Your task to perform on an android device: visit the assistant section in the google photos Image 0: 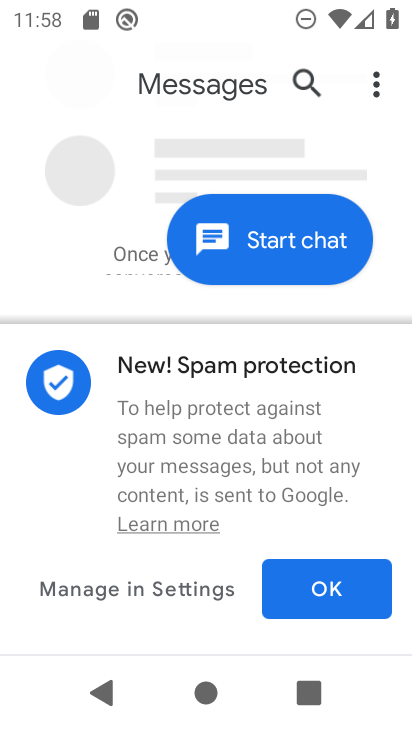
Step 0: press home button
Your task to perform on an android device: visit the assistant section in the google photos Image 1: 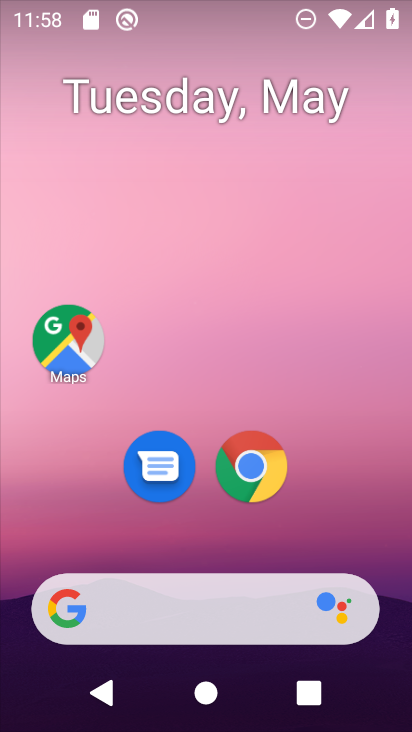
Step 1: drag from (205, 538) to (226, 75)
Your task to perform on an android device: visit the assistant section in the google photos Image 2: 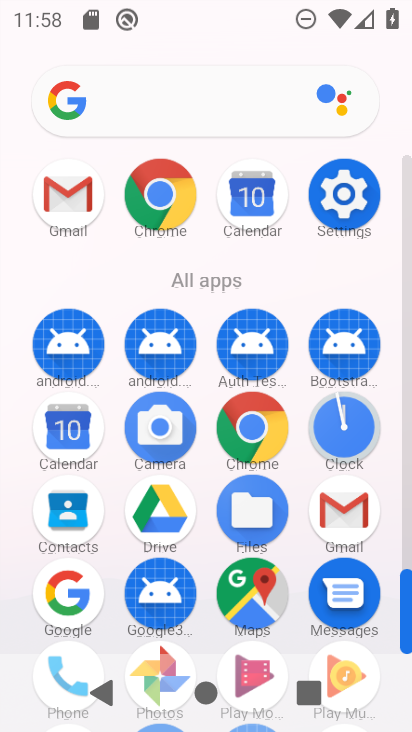
Step 2: drag from (206, 549) to (226, 188)
Your task to perform on an android device: visit the assistant section in the google photos Image 3: 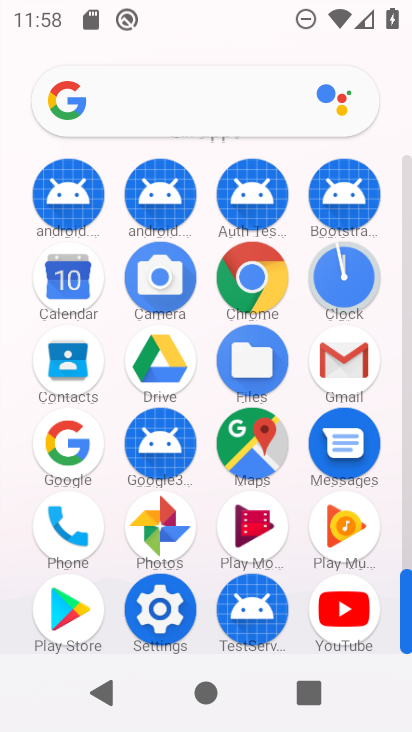
Step 3: click (162, 520)
Your task to perform on an android device: visit the assistant section in the google photos Image 4: 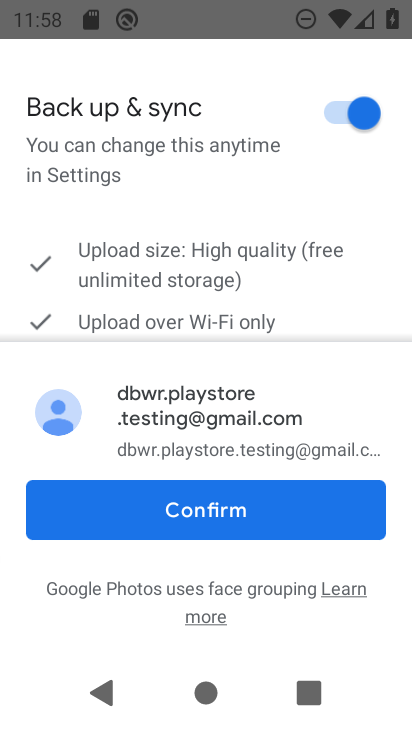
Step 4: click (216, 503)
Your task to perform on an android device: visit the assistant section in the google photos Image 5: 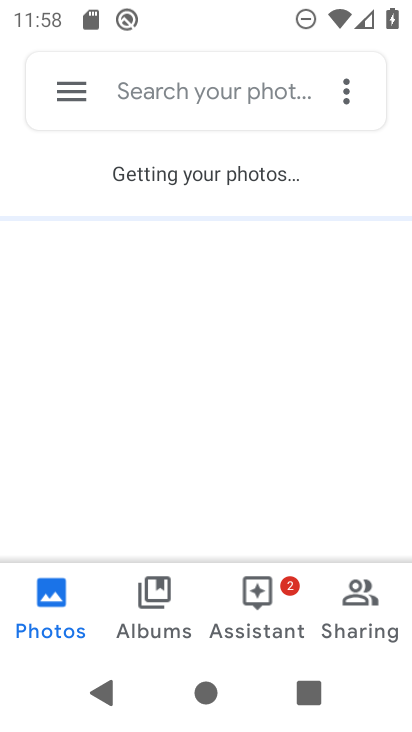
Step 5: click (258, 585)
Your task to perform on an android device: visit the assistant section in the google photos Image 6: 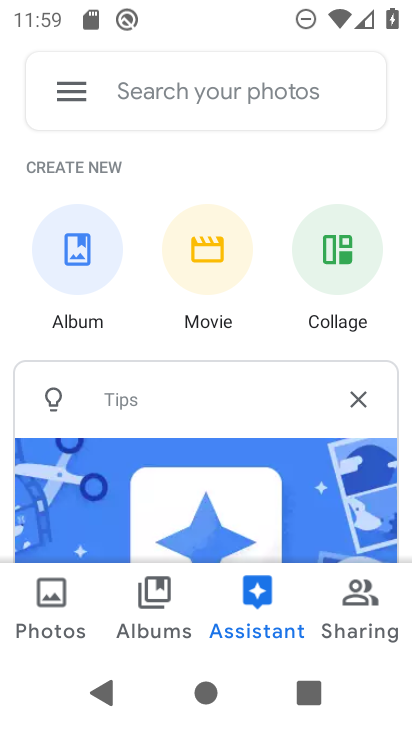
Step 6: task complete